Your task to perform on an android device: Open Yahoo.com Image 0: 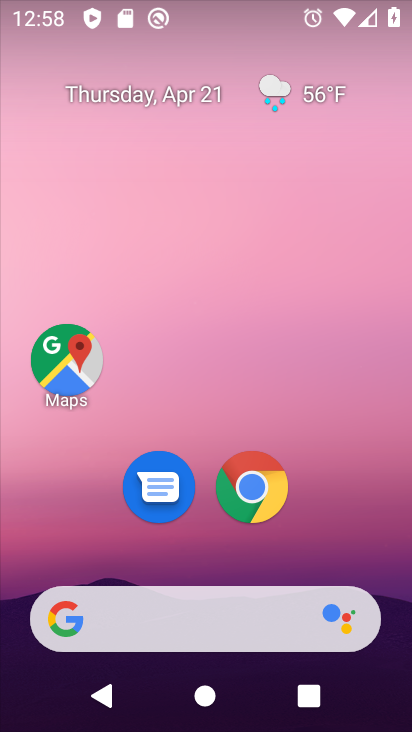
Step 0: click (249, 506)
Your task to perform on an android device: Open Yahoo.com Image 1: 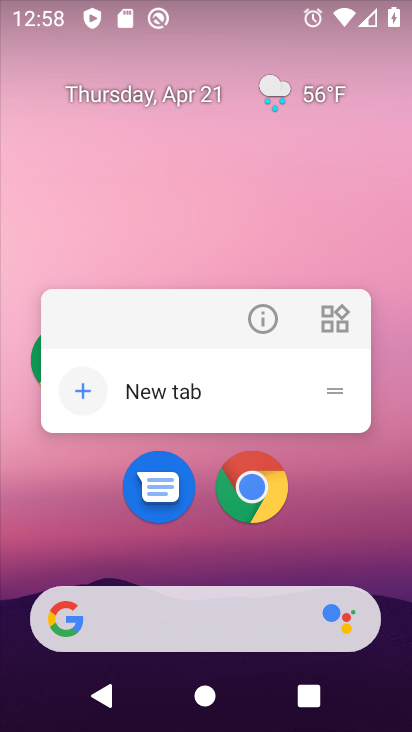
Step 1: click (252, 492)
Your task to perform on an android device: Open Yahoo.com Image 2: 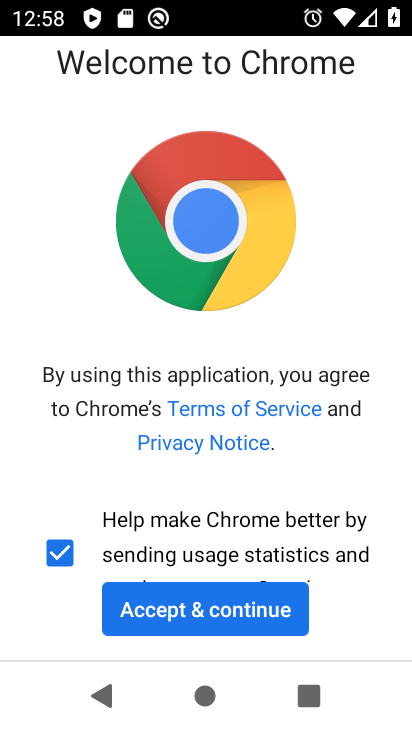
Step 2: click (253, 595)
Your task to perform on an android device: Open Yahoo.com Image 3: 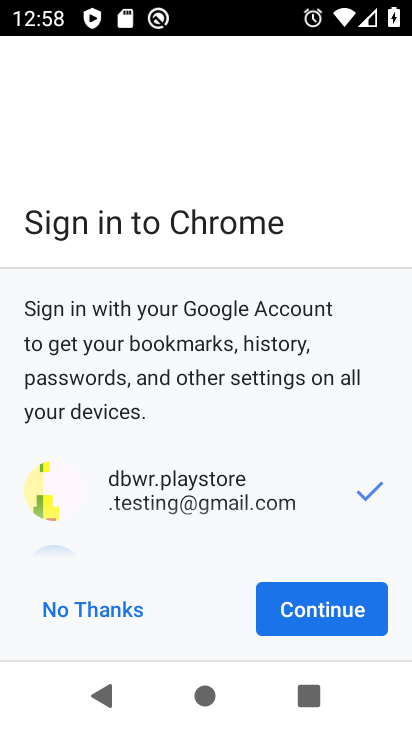
Step 3: click (253, 595)
Your task to perform on an android device: Open Yahoo.com Image 4: 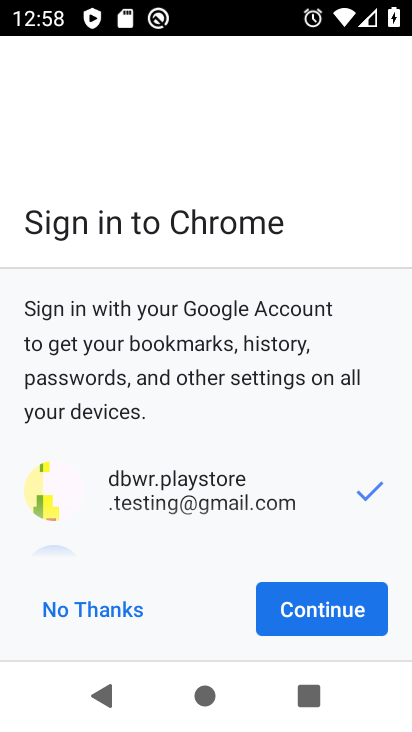
Step 4: click (299, 611)
Your task to perform on an android device: Open Yahoo.com Image 5: 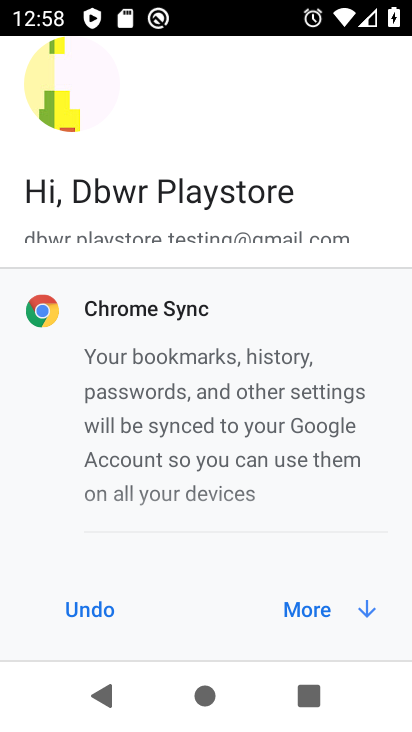
Step 5: click (299, 611)
Your task to perform on an android device: Open Yahoo.com Image 6: 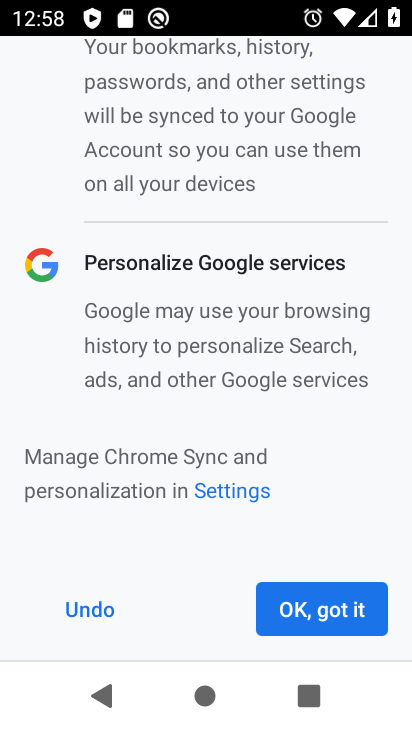
Step 6: click (299, 611)
Your task to perform on an android device: Open Yahoo.com Image 7: 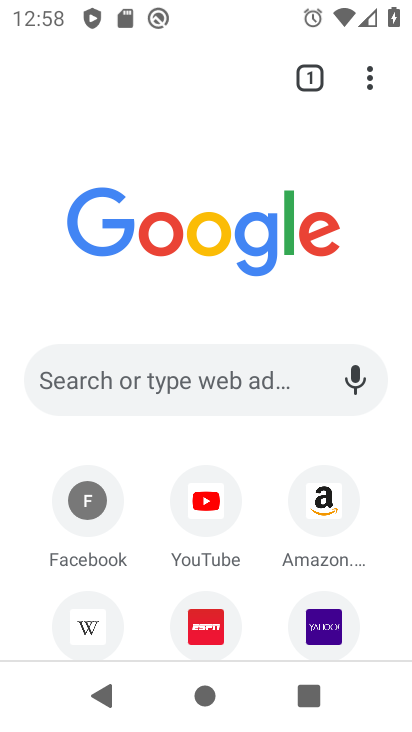
Step 7: click (315, 622)
Your task to perform on an android device: Open Yahoo.com Image 8: 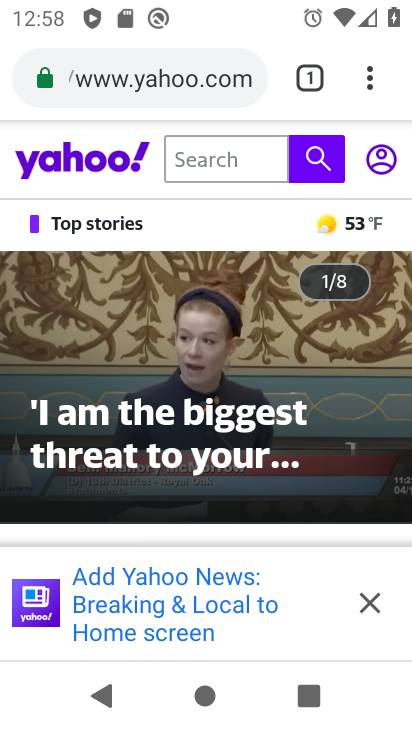
Step 8: click (369, 601)
Your task to perform on an android device: Open Yahoo.com Image 9: 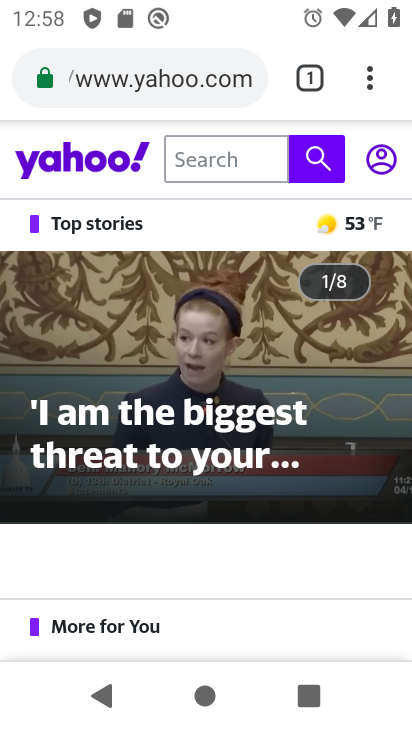
Step 9: task complete